Your task to perform on an android device: change the clock display to analog Image 0: 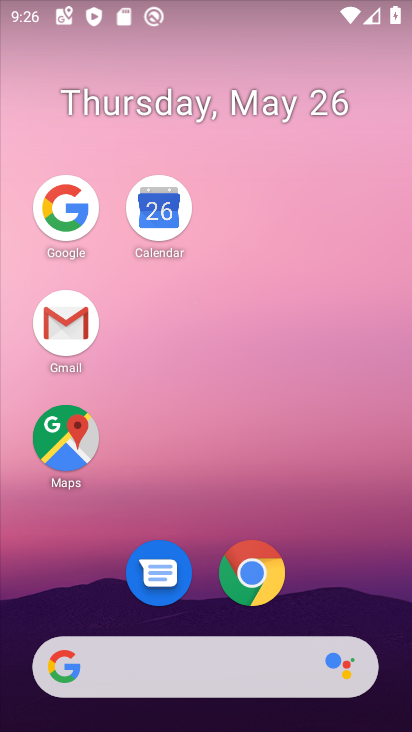
Step 0: drag from (349, 455) to (303, 169)
Your task to perform on an android device: change the clock display to analog Image 1: 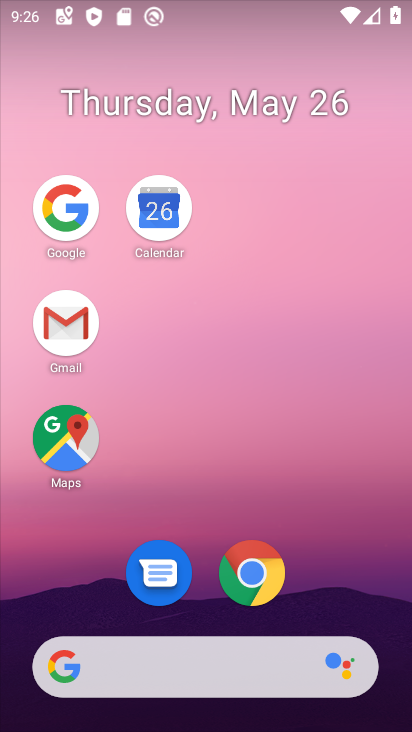
Step 1: drag from (307, 619) to (270, 129)
Your task to perform on an android device: change the clock display to analog Image 2: 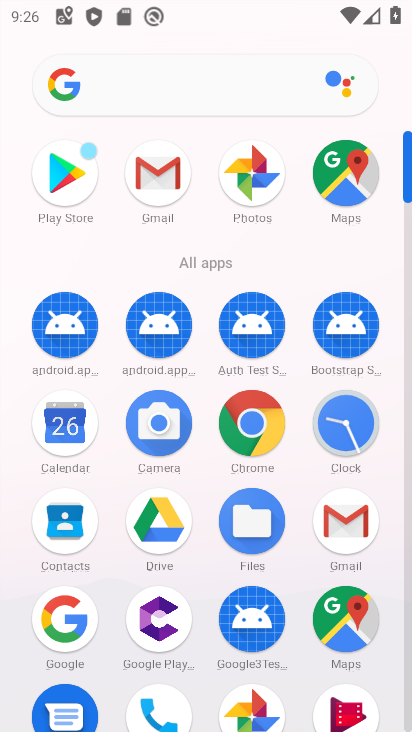
Step 2: drag from (346, 423) to (236, 245)
Your task to perform on an android device: change the clock display to analog Image 3: 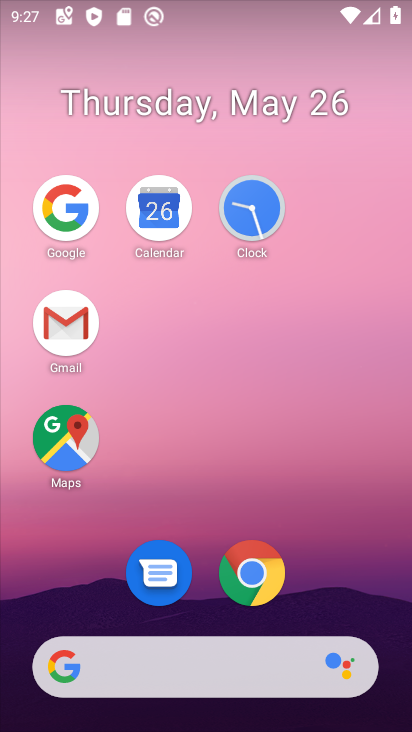
Step 3: click (277, 207)
Your task to perform on an android device: change the clock display to analog Image 4: 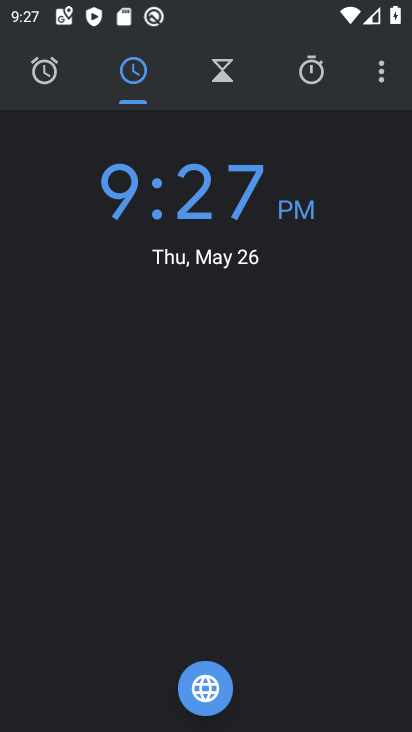
Step 4: click (374, 68)
Your task to perform on an android device: change the clock display to analog Image 5: 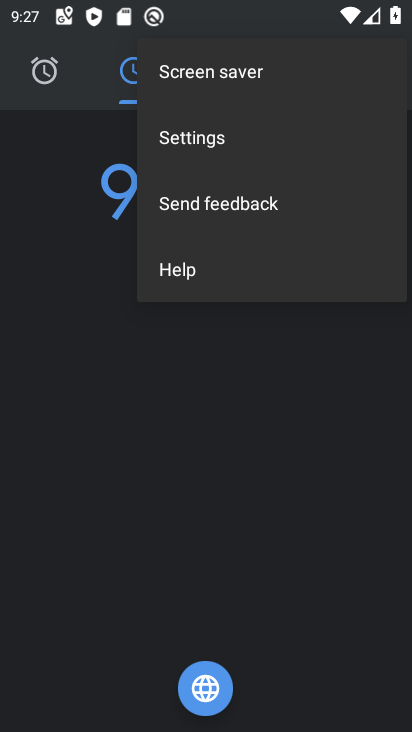
Step 5: click (268, 126)
Your task to perform on an android device: change the clock display to analog Image 6: 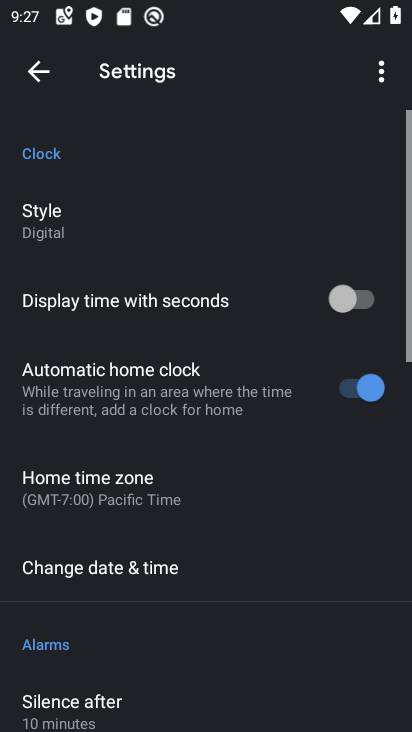
Step 6: click (172, 217)
Your task to perform on an android device: change the clock display to analog Image 7: 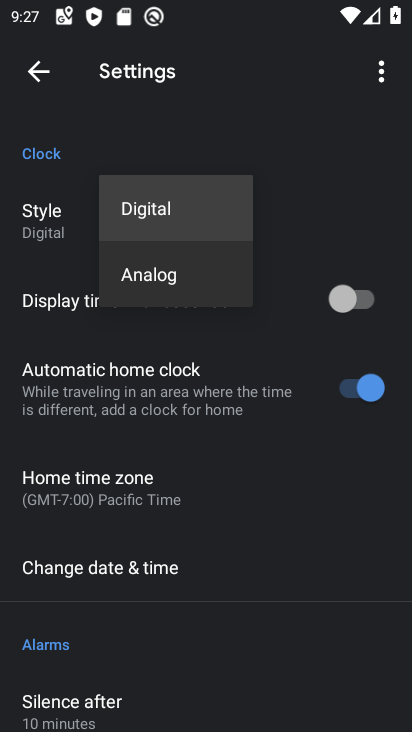
Step 7: click (173, 278)
Your task to perform on an android device: change the clock display to analog Image 8: 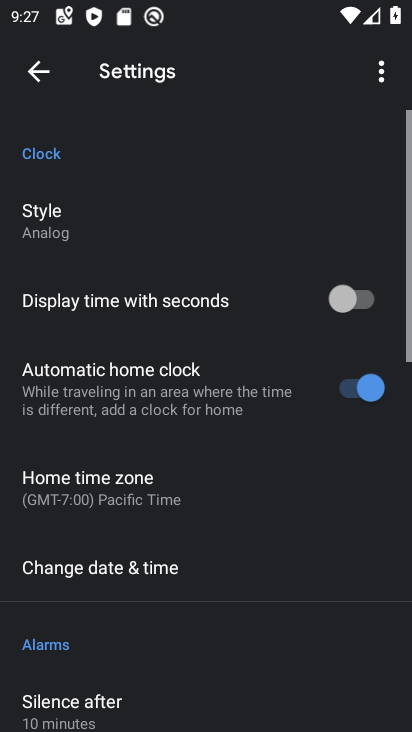
Step 8: task complete